Your task to perform on an android device: Is it going to rain tomorrow? Image 0: 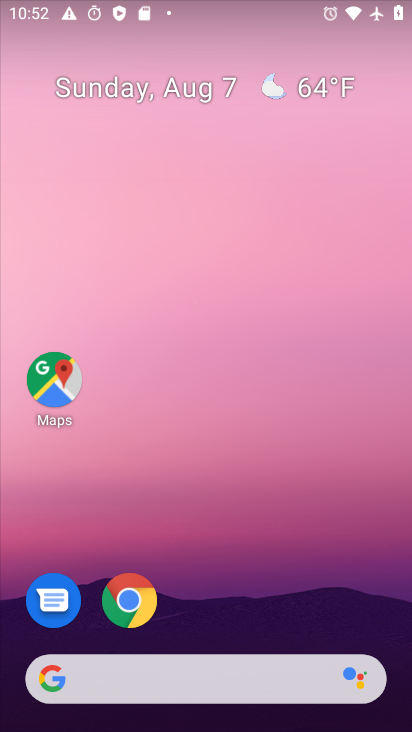
Step 0: drag from (240, 635) to (321, 6)
Your task to perform on an android device: Is it going to rain tomorrow? Image 1: 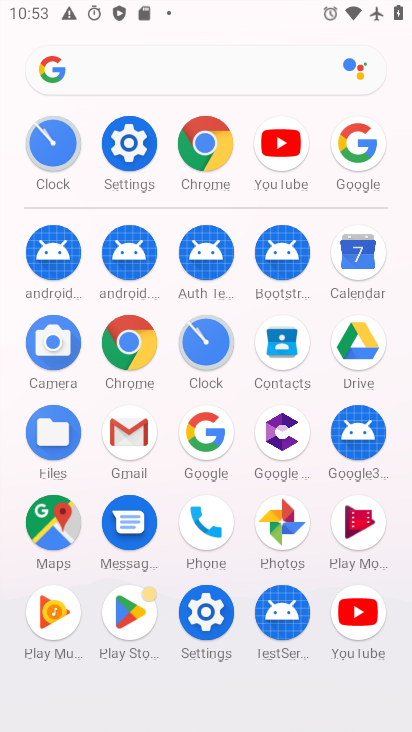
Step 1: click (212, 443)
Your task to perform on an android device: Is it going to rain tomorrow? Image 2: 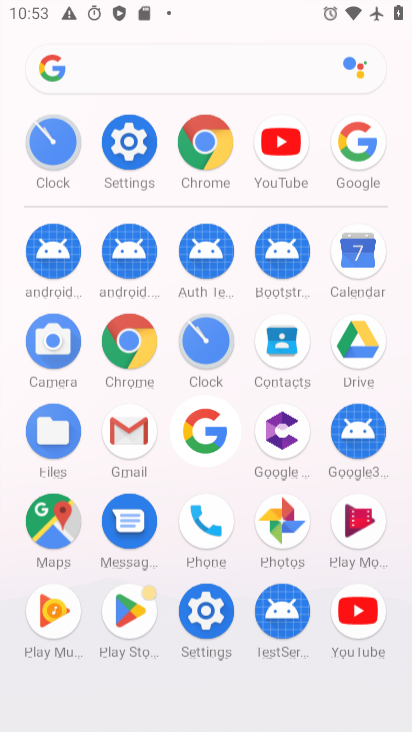
Step 2: click (212, 443)
Your task to perform on an android device: Is it going to rain tomorrow? Image 3: 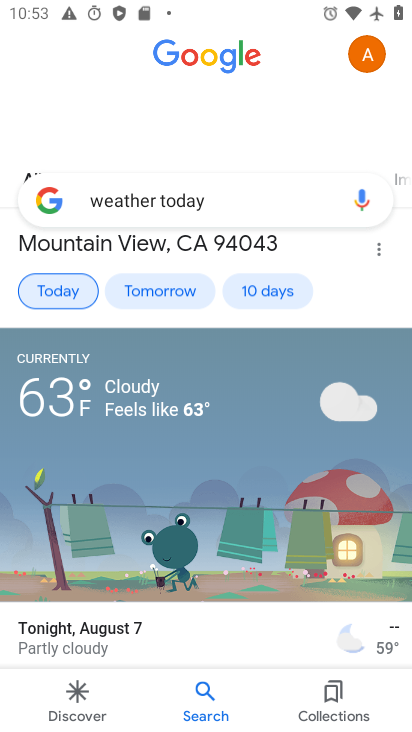
Step 3: click (183, 295)
Your task to perform on an android device: Is it going to rain tomorrow? Image 4: 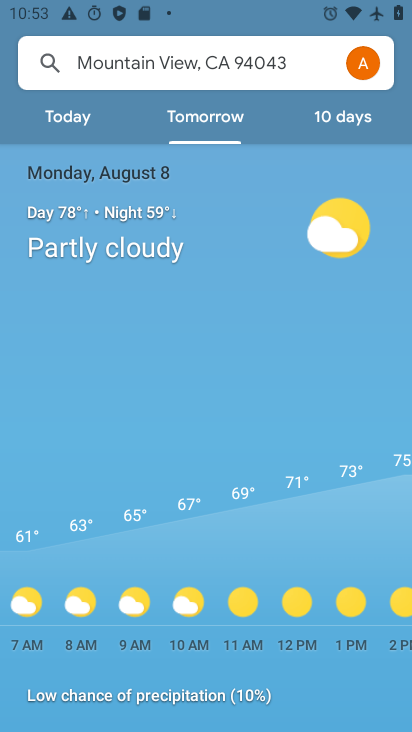
Step 4: task complete